Your task to perform on an android device: move a message to another label in the gmail app Image 0: 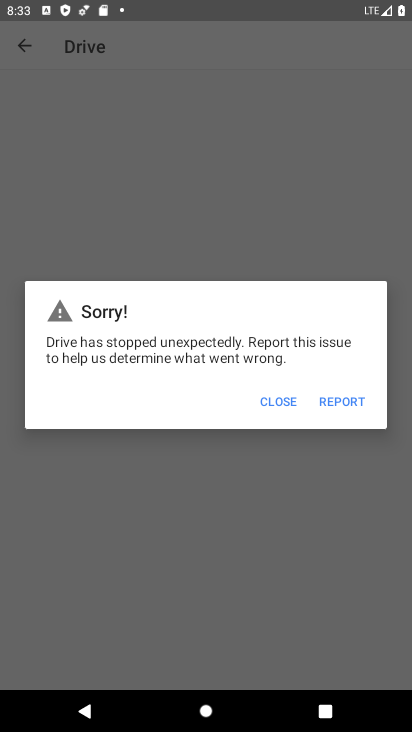
Step 0: press home button
Your task to perform on an android device: move a message to another label in the gmail app Image 1: 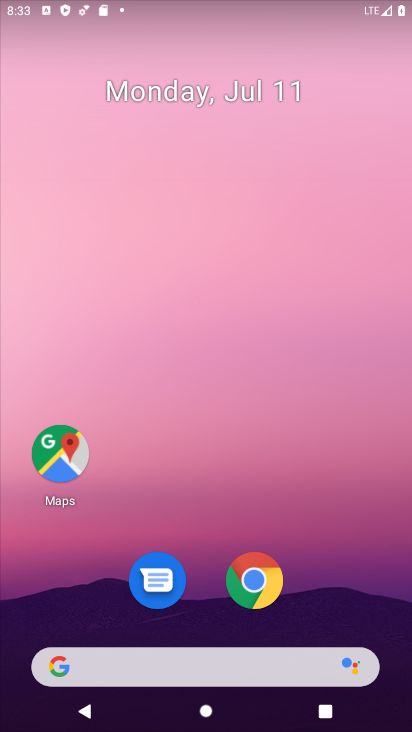
Step 1: drag from (324, 597) to (304, 62)
Your task to perform on an android device: move a message to another label in the gmail app Image 2: 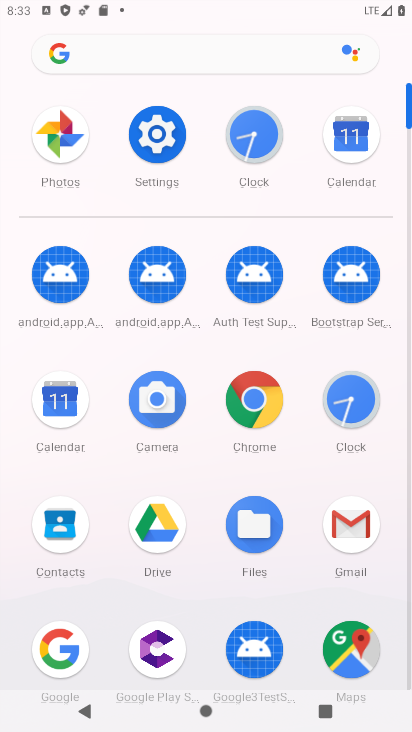
Step 2: click (347, 513)
Your task to perform on an android device: move a message to another label in the gmail app Image 3: 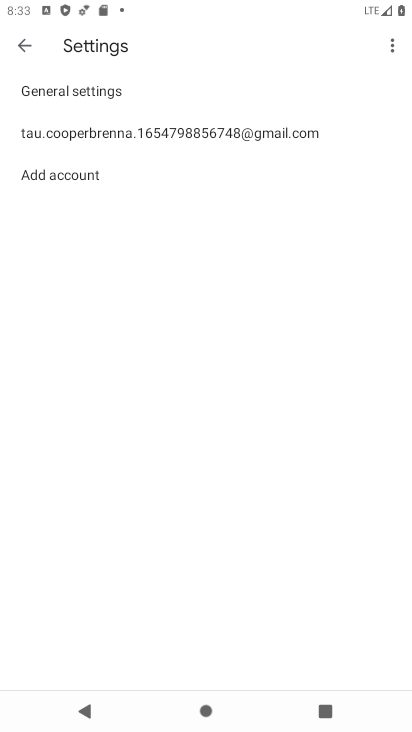
Step 3: click (26, 43)
Your task to perform on an android device: move a message to another label in the gmail app Image 4: 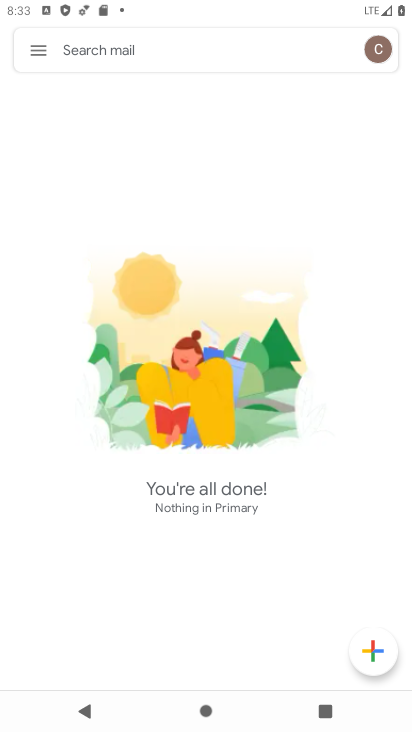
Step 4: click (32, 48)
Your task to perform on an android device: move a message to another label in the gmail app Image 5: 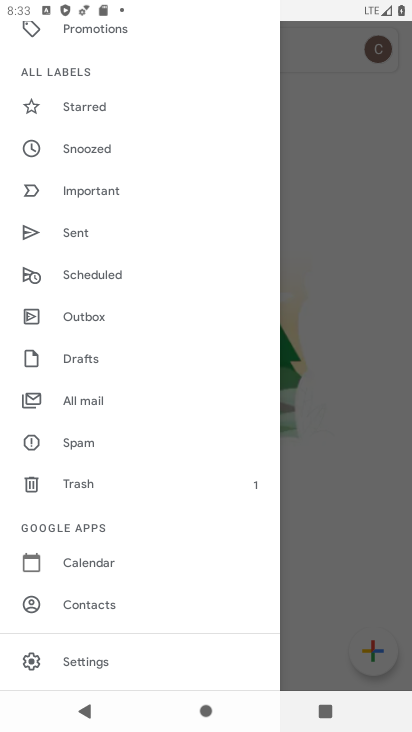
Step 5: click (79, 401)
Your task to perform on an android device: move a message to another label in the gmail app Image 6: 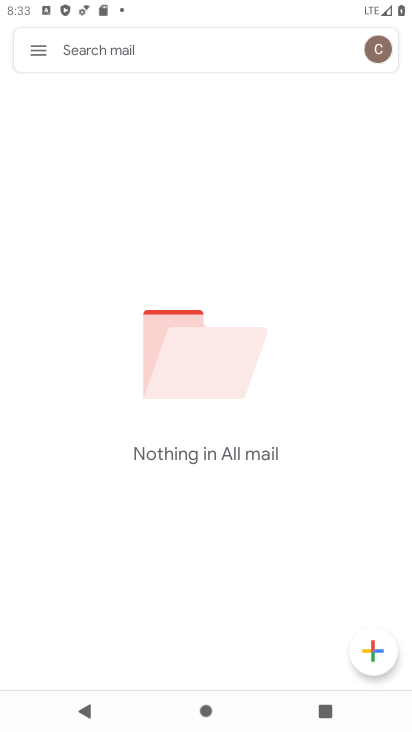
Step 6: task complete